Your task to perform on an android device: Go to Wikipedia Image 0: 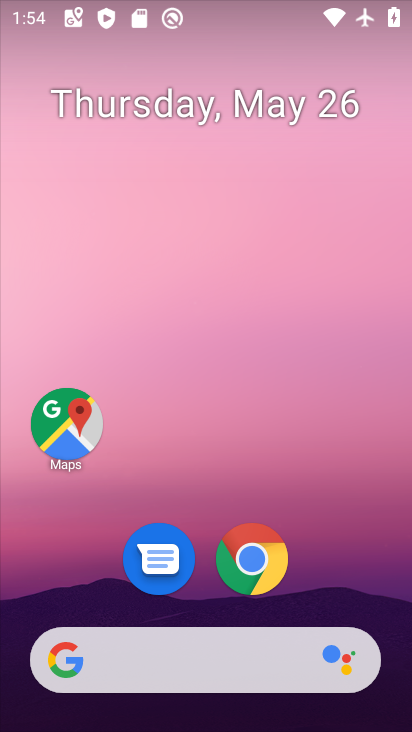
Step 0: press home button
Your task to perform on an android device: Go to Wikipedia Image 1: 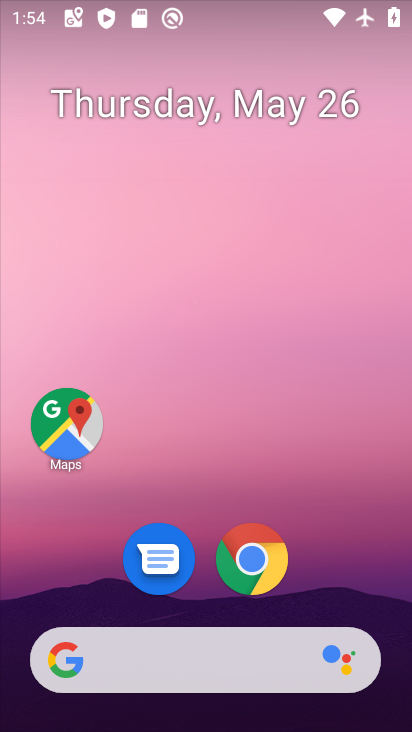
Step 1: click (263, 572)
Your task to perform on an android device: Go to Wikipedia Image 2: 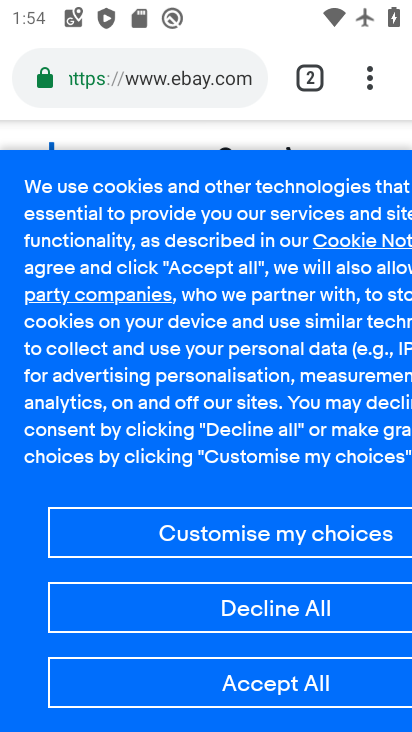
Step 2: drag from (372, 77) to (222, 148)
Your task to perform on an android device: Go to Wikipedia Image 3: 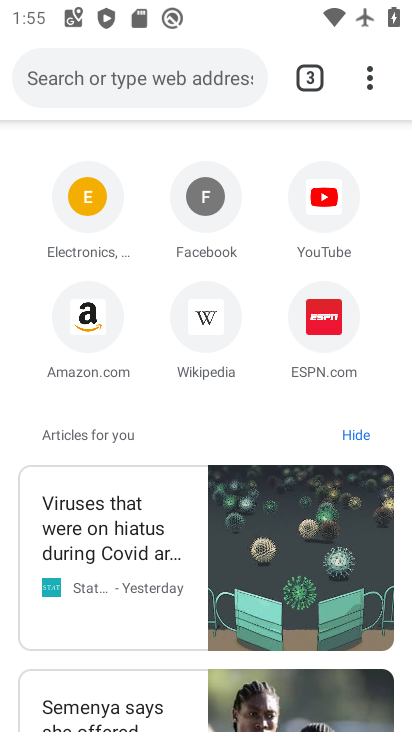
Step 3: click (193, 312)
Your task to perform on an android device: Go to Wikipedia Image 4: 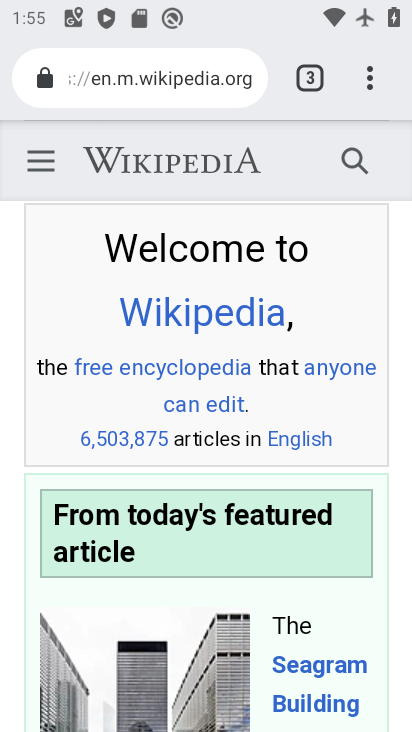
Step 4: task complete